Your task to perform on an android device: Open Google Chrome Image 0: 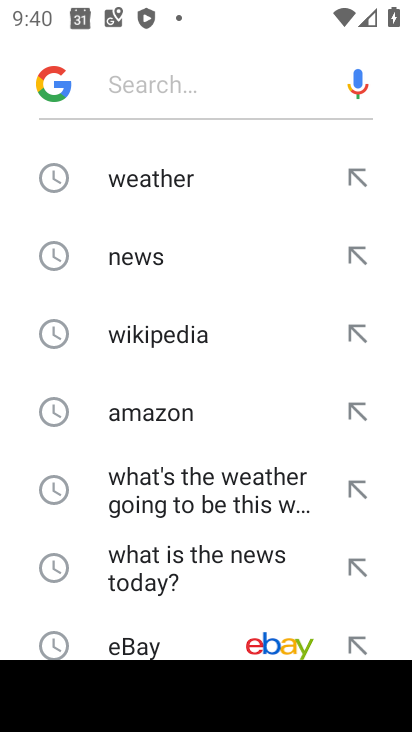
Step 0: press home button
Your task to perform on an android device: Open Google Chrome Image 1: 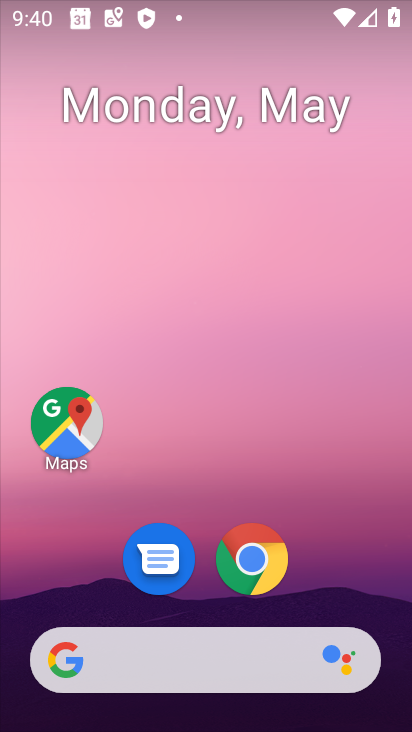
Step 1: click (255, 555)
Your task to perform on an android device: Open Google Chrome Image 2: 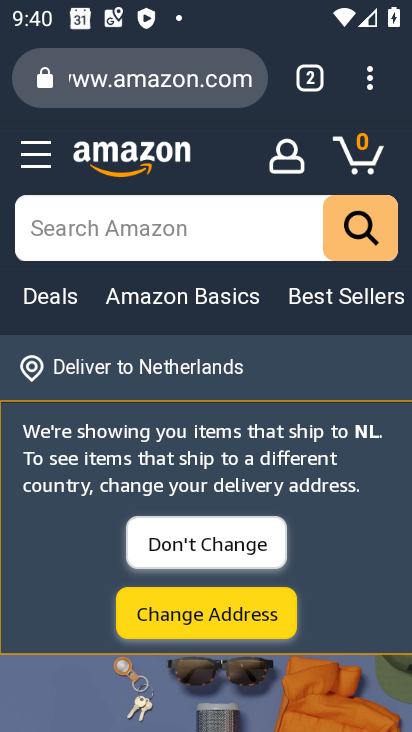
Step 2: task complete